Your task to perform on an android device: Open Google Maps and go to "Timeline" Image 0: 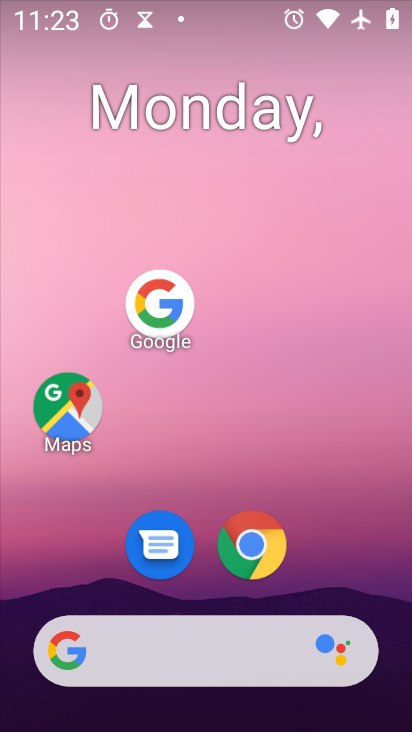
Step 0: press home button
Your task to perform on an android device: Open Google Maps and go to "Timeline" Image 1: 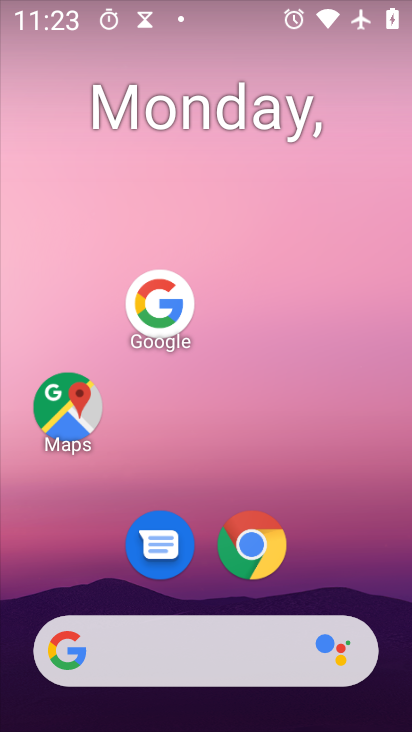
Step 1: click (71, 414)
Your task to perform on an android device: Open Google Maps and go to "Timeline" Image 2: 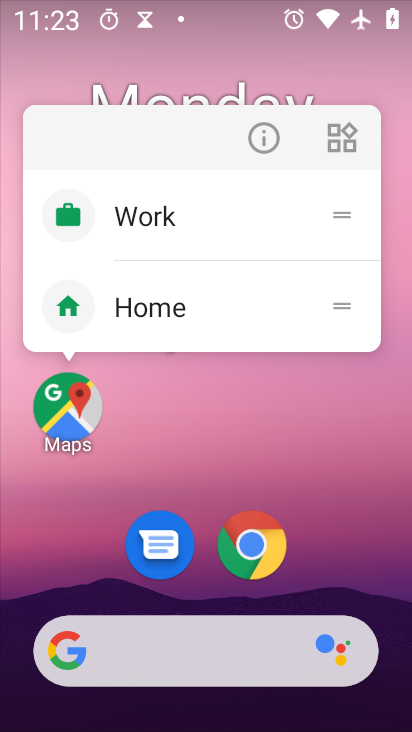
Step 2: click (61, 411)
Your task to perform on an android device: Open Google Maps and go to "Timeline" Image 3: 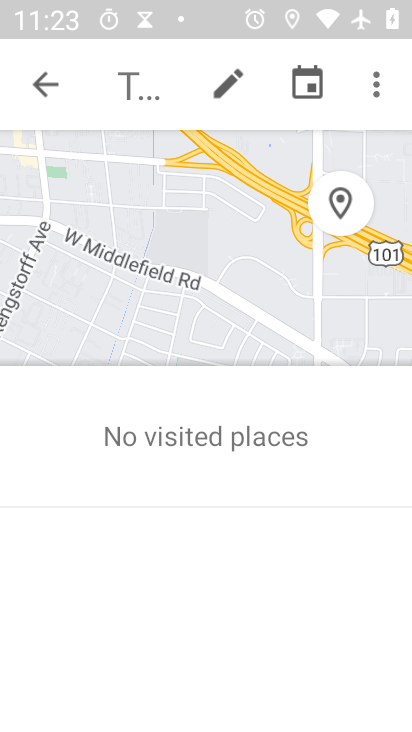
Step 3: click (39, 72)
Your task to perform on an android device: Open Google Maps and go to "Timeline" Image 4: 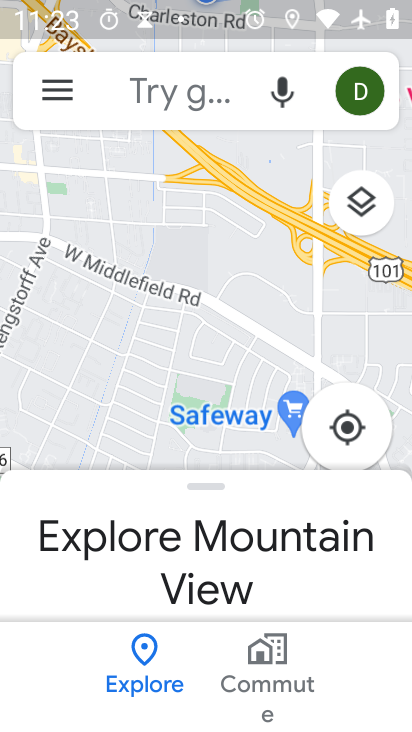
Step 4: click (47, 79)
Your task to perform on an android device: Open Google Maps and go to "Timeline" Image 5: 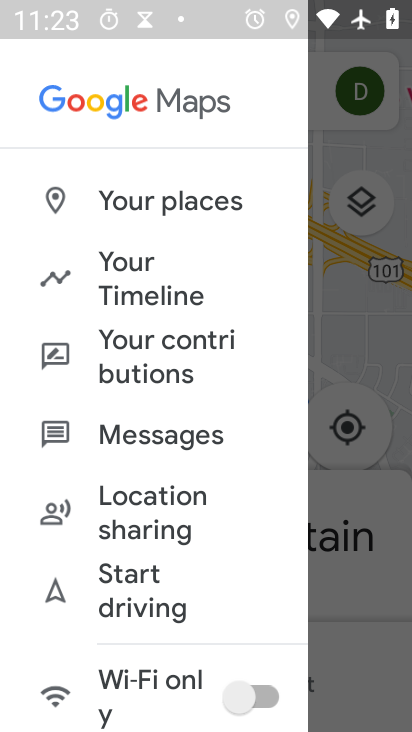
Step 5: click (125, 291)
Your task to perform on an android device: Open Google Maps and go to "Timeline" Image 6: 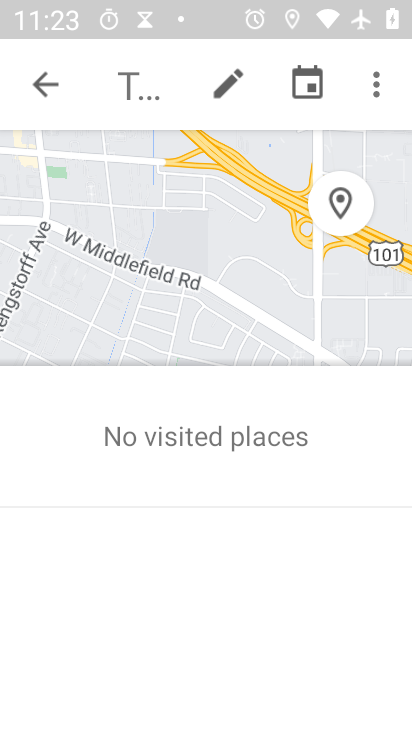
Step 6: task complete